Your task to perform on an android device: check battery use Image 0: 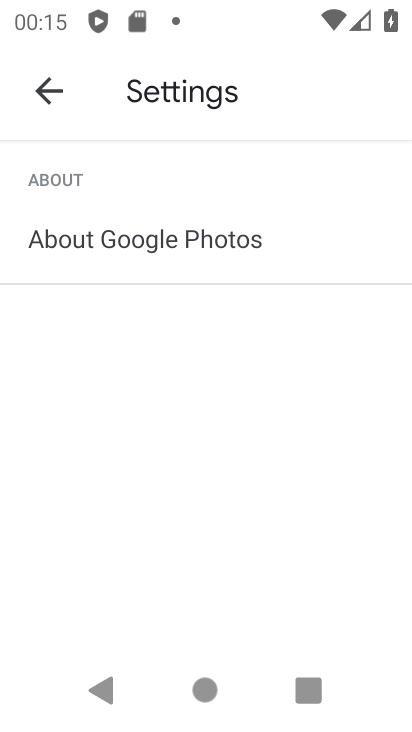
Step 0: press home button
Your task to perform on an android device: check battery use Image 1: 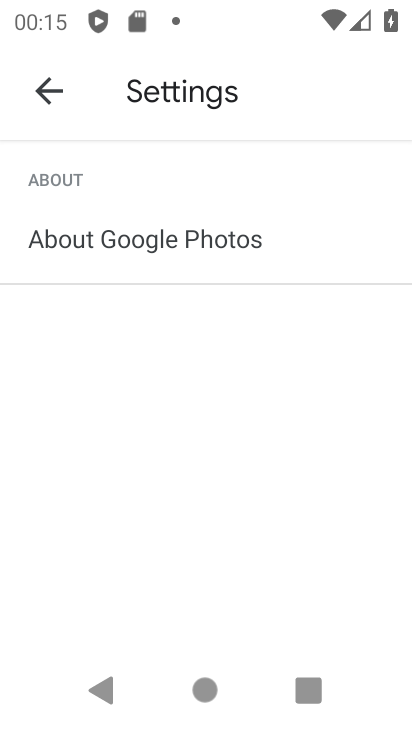
Step 1: press home button
Your task to perform on an android device: check battery use Image 2: 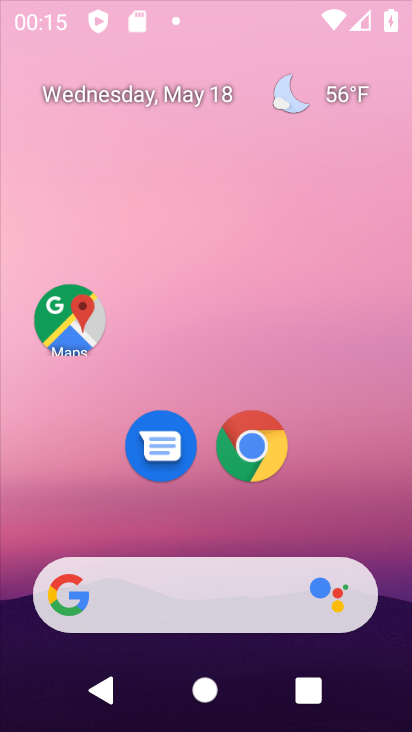
Step 2: press home button
Your task to perform on an android device: check battery use Image 3: 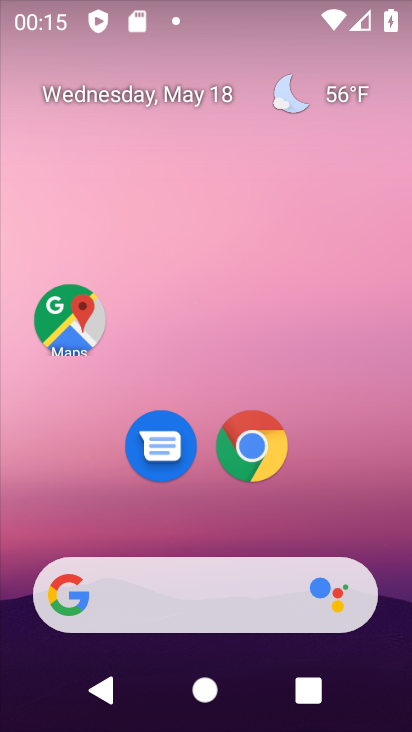
Step 3: drag from (270, 641) to (180, 128)
Your task to perform on an android device: check battery use Image 4: 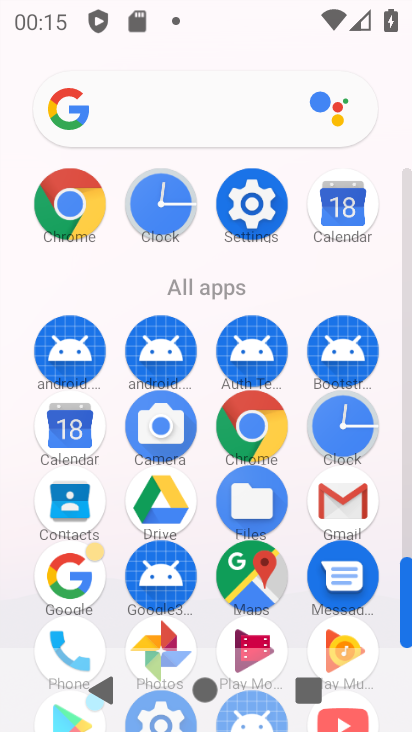
Step 4: click (255, 205)
Your task to perform on an android device: check battery use Image 5: 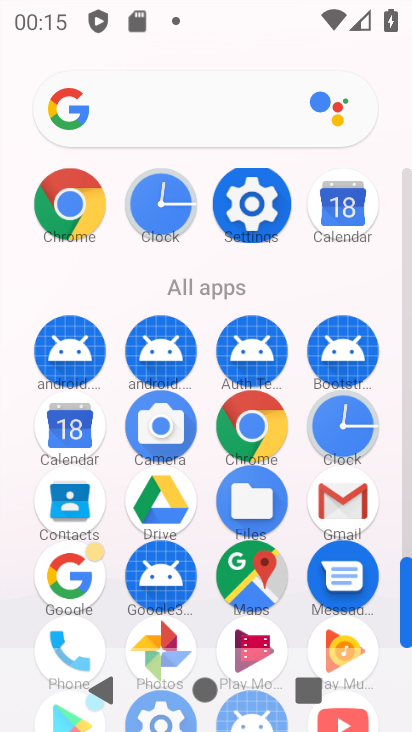
Step 5: click (256, 204)
Your task to perform on an android device: check battery use Image 6: 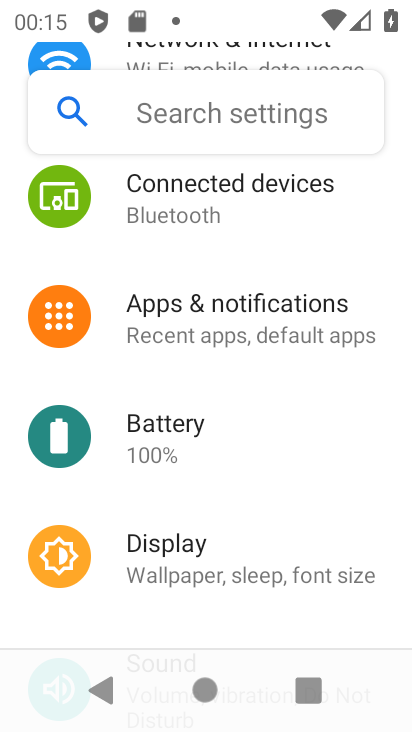
Step 6: click (147, 427)
Your task to perform on an android device: check battery use Image 7: 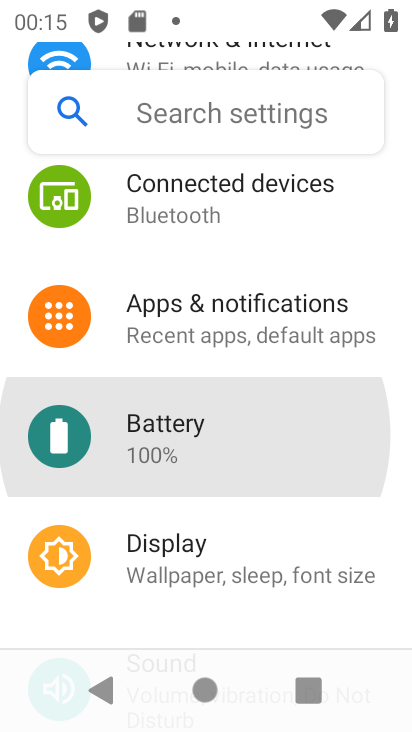
Step 7: click (147, 427)
Your task to perform on an android device: check battery use Image 8: 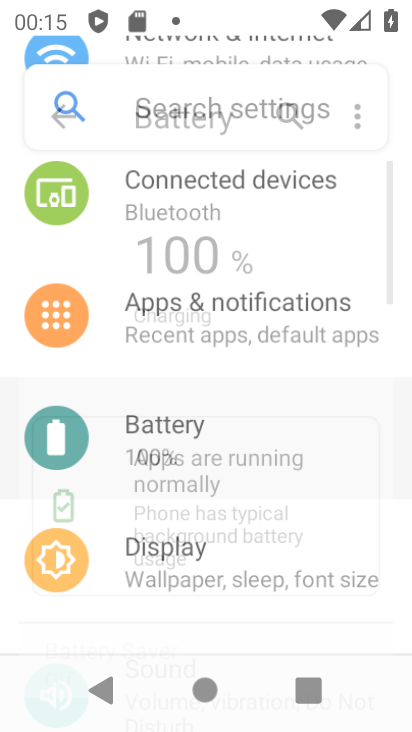
Step 8: click (147, 427)
Your task to perform on an android device: check battery use Image 9: 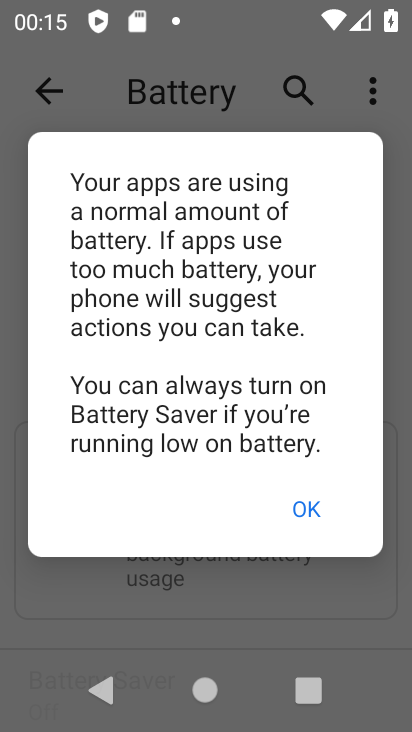
Step 9: task complete